Your task to perform on an android device: manage bookmarks in the chrome app Image 0: 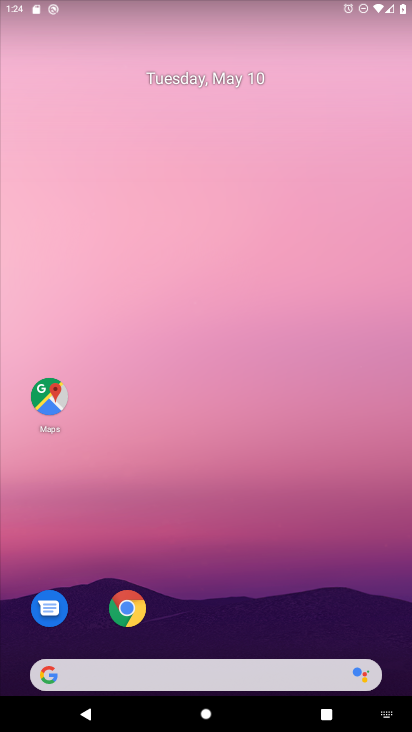
Step 0: drag from (348, 631) to (333, 166)
Your task to perform on an android device: manage bookmarks in the chrome app Image 1: 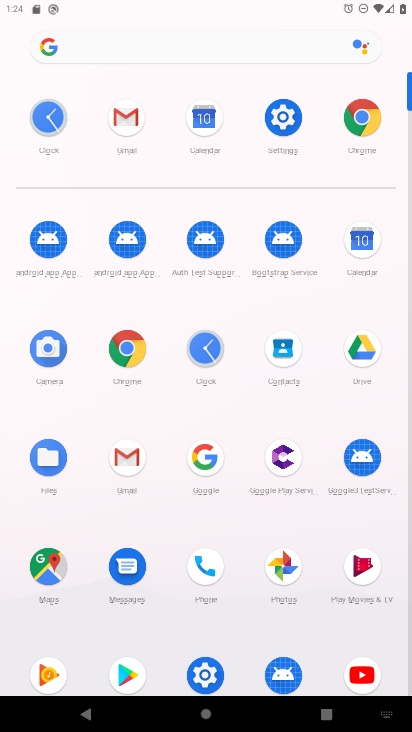
Step 1: click (132, 358)
Your task to perform on an android device: manage bookmarks in the chrome app Image 2: 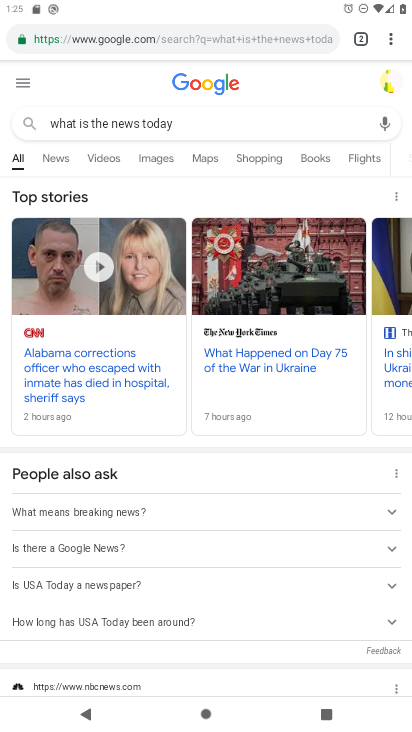
Step 2: task complete